Your task to perform on an android device: read, delete, or share a saved page in the chrome app Image 0: 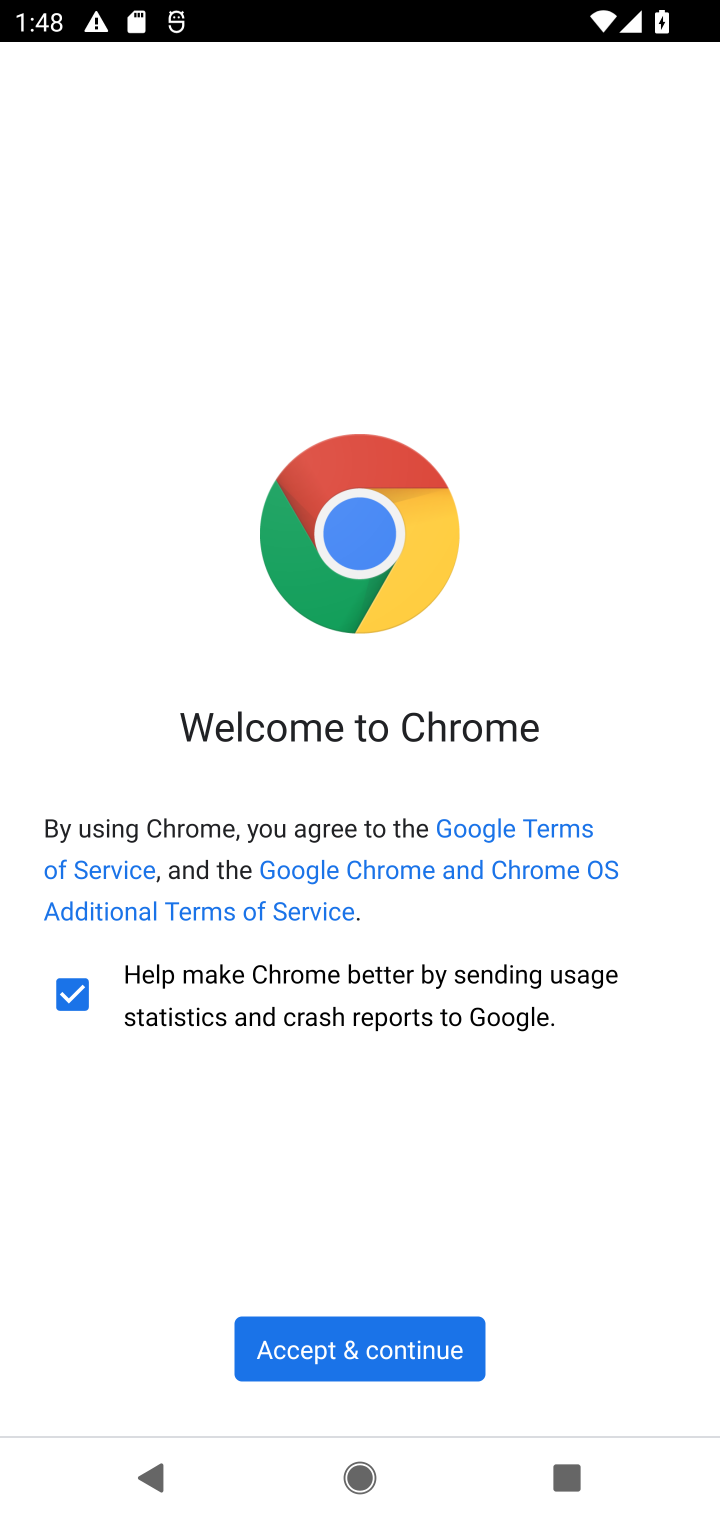
Step 0: press home button
Your task to perform on an android device: read, delete, or share a saved page in the chrome app Image 1: 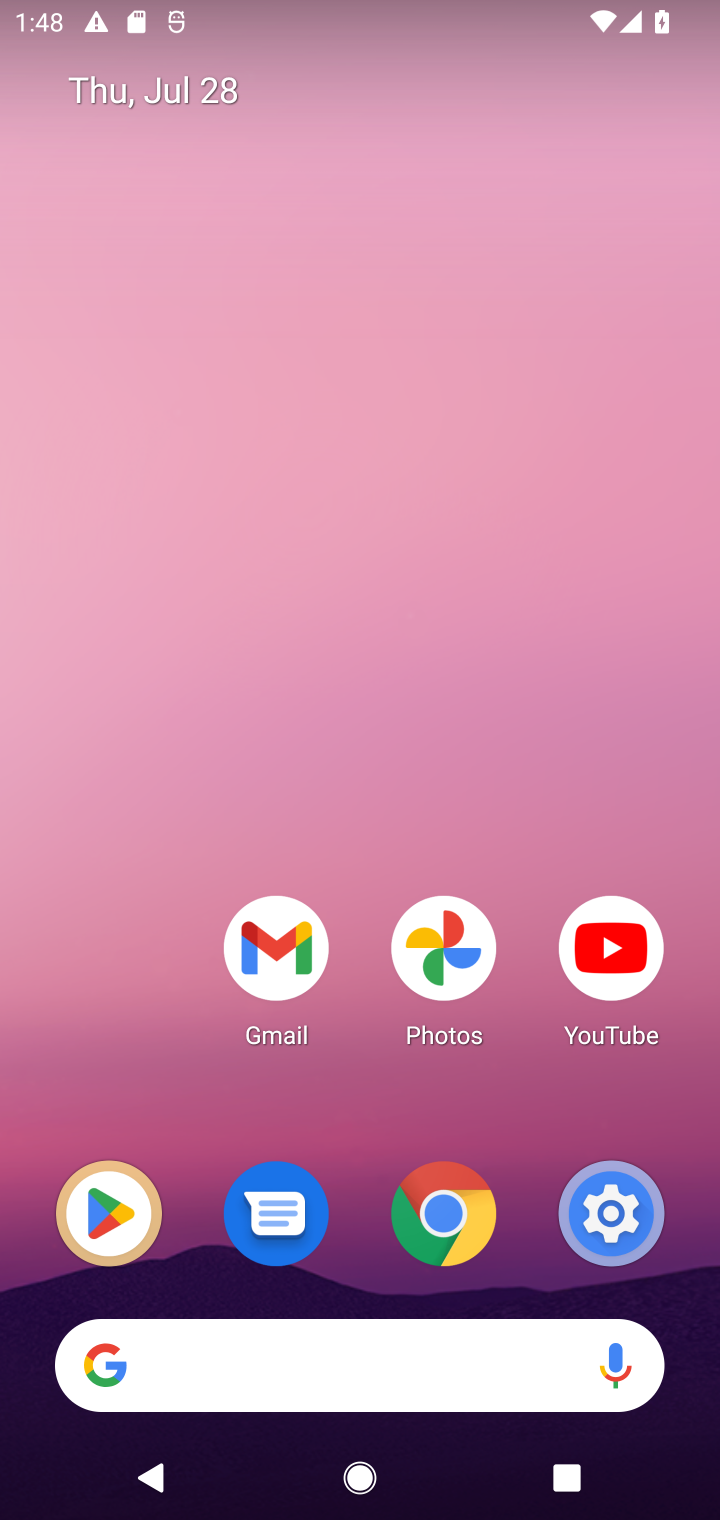
Step 1: click (441, 1228)
Your task to perform on an android device: read, delete, or share a saved page in the chrome app Image 2: 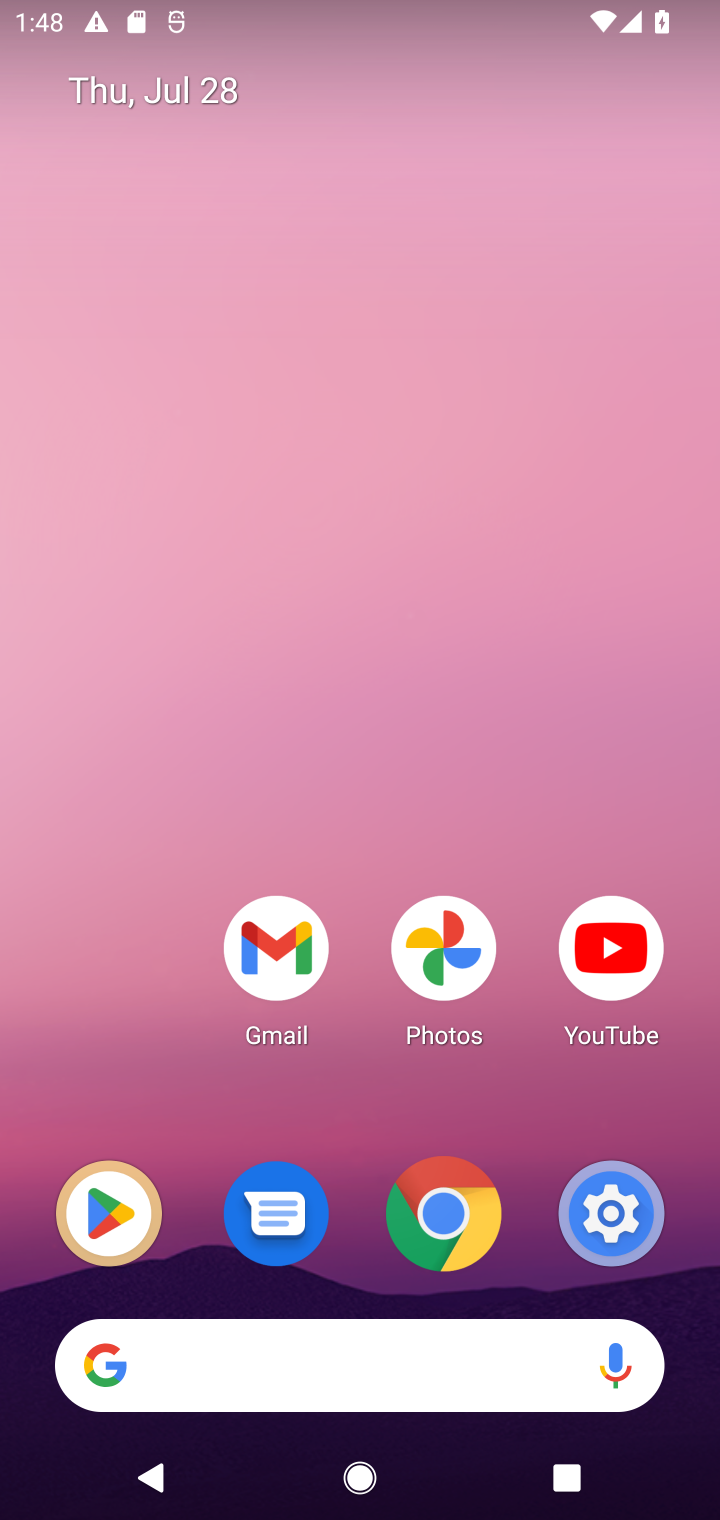
Step 2: click (445, 1209)
Your task to perform on an android device: read, delete, or share a saved page in the chrome app Image 3: 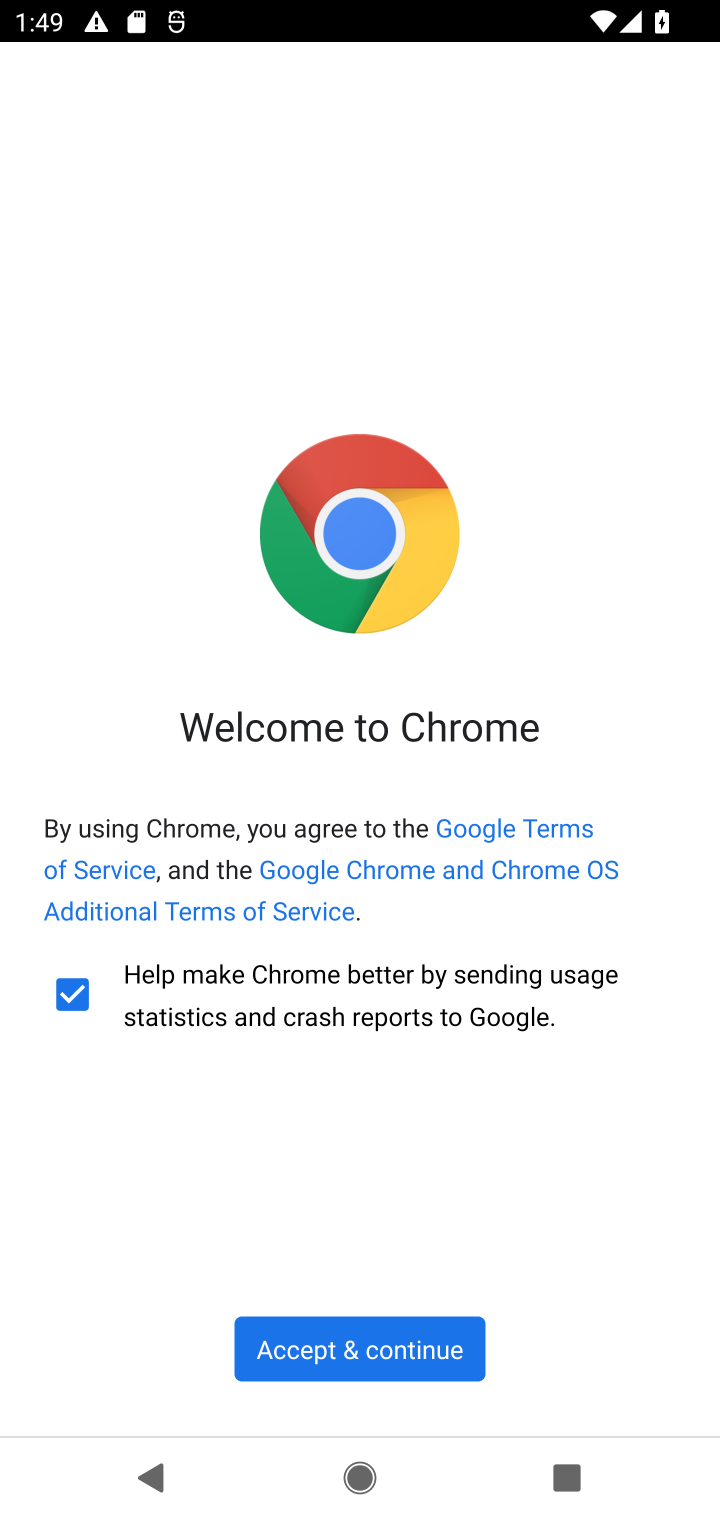
Step 3: click (331, 1343)
Your task to perform on an android device: read, delete, or share a saved page in the chrome app Image 4: 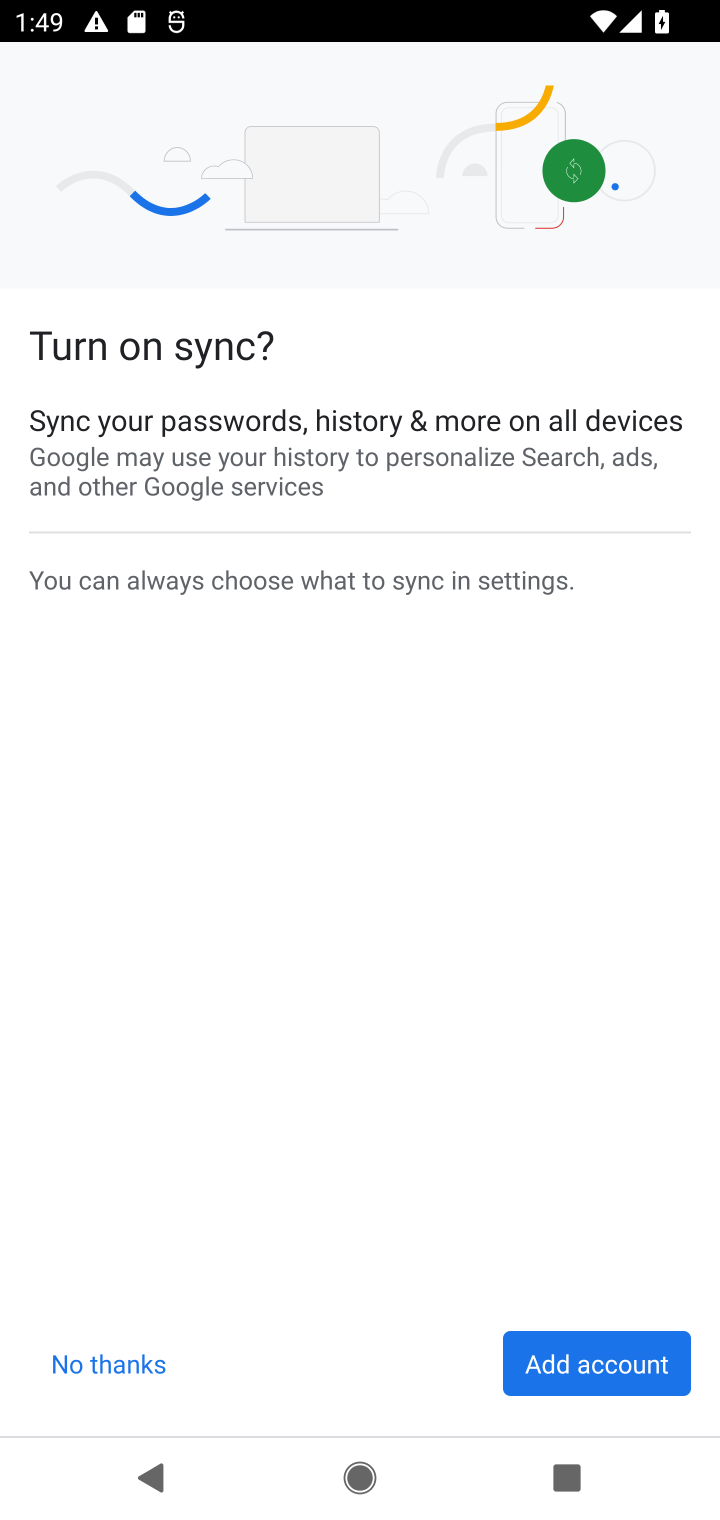
Step 4: click (108, 1357)
Your task to perform on an android device: read, delete, or share a saved page in the chrome app Image 5: 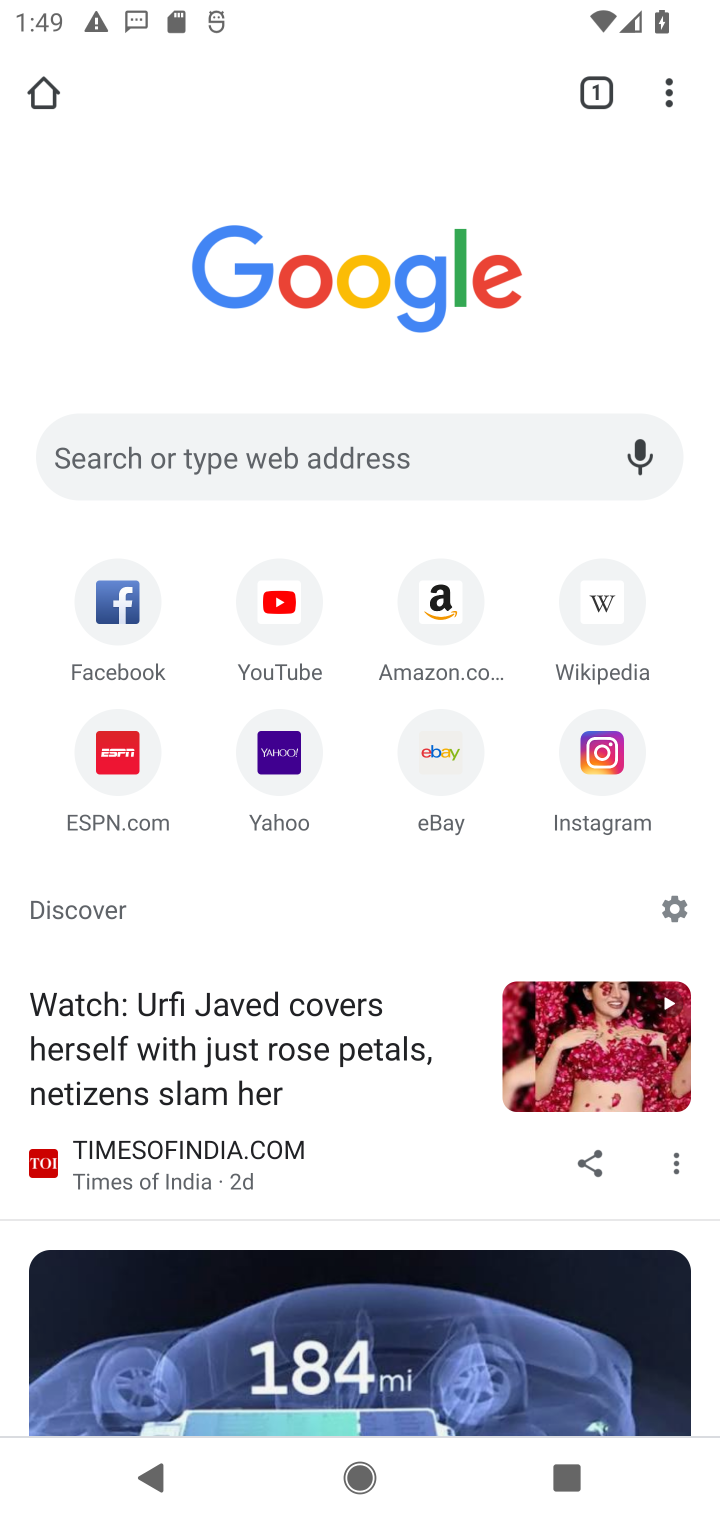
Step 5: click (669, 86)
Your task to perform on an android device: read, delete, or share a saved page in the chrome app Image 6: 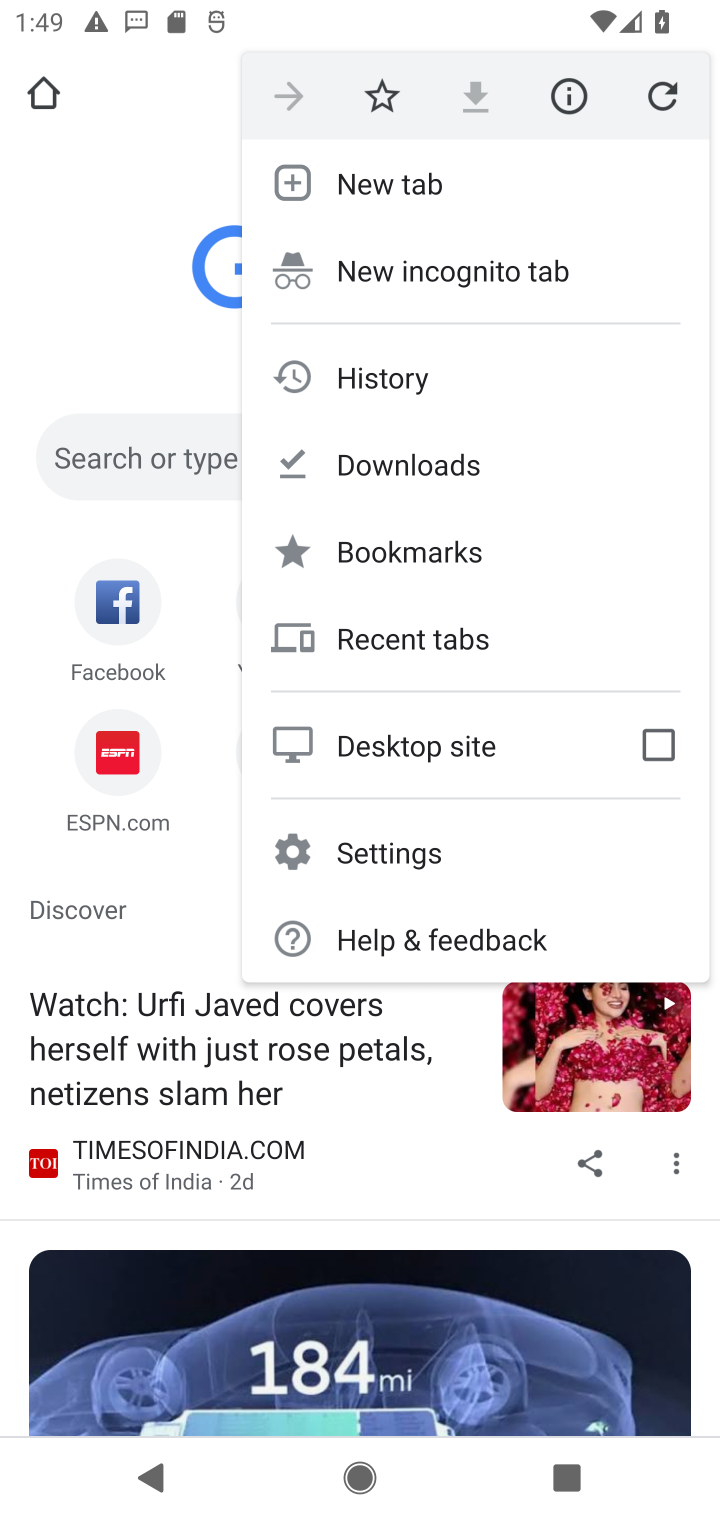
Step 6: click (393, 461)
Your task to perform on an android device: read, delete, or share a saved page in the chrome app Image 7: 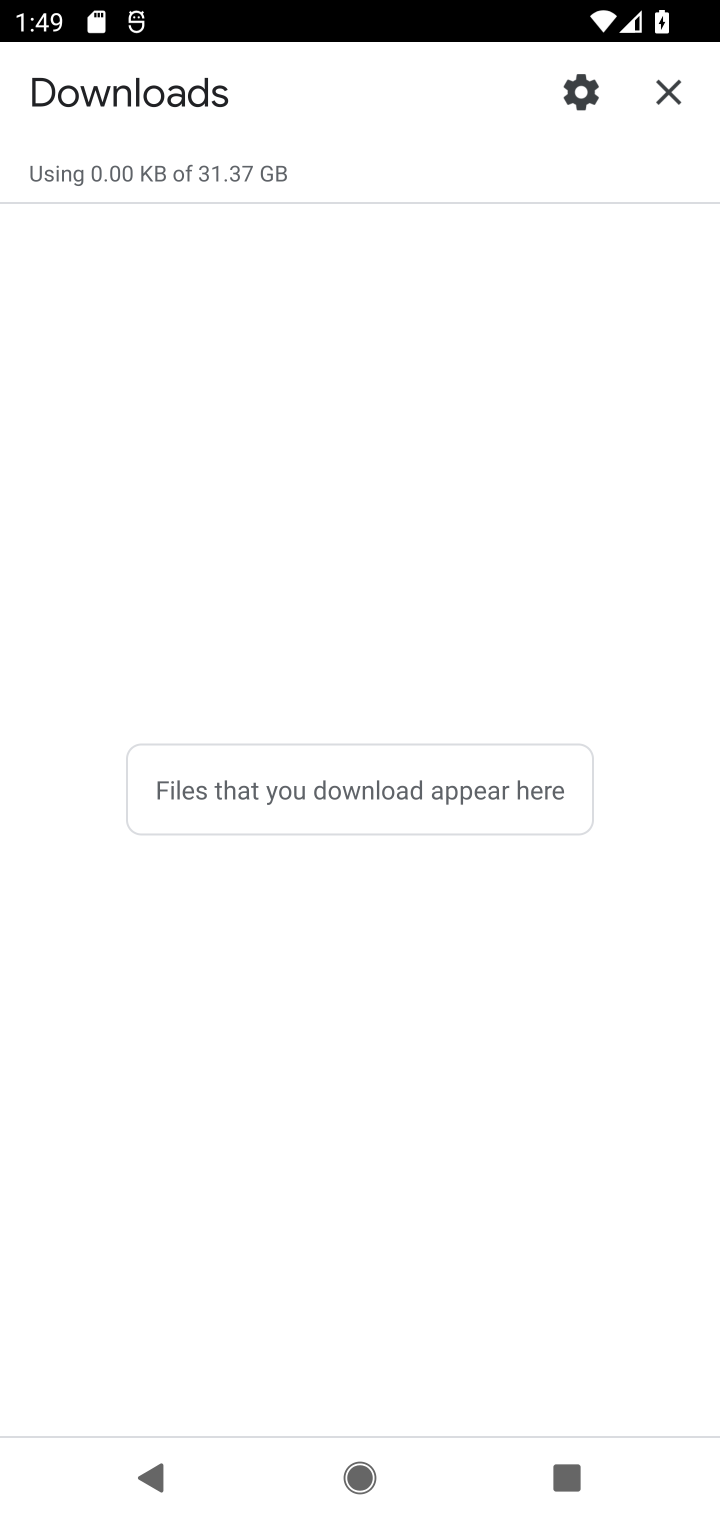
Step 7: task complete